Your task to perform on an android device: Open location settings Image 0: 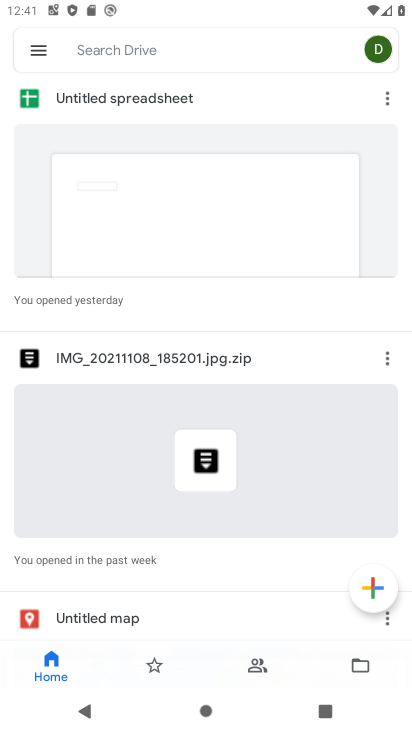
Step 0: press home button
Your task to perform on an android device: Open location settings Image 1: 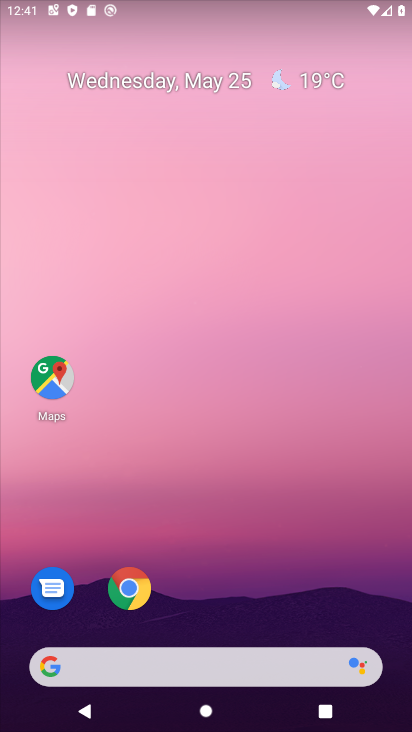
Step 1: drag from (210, 635) to (267, 99)
Your task to perform on an android device: Open location settings Image 2: 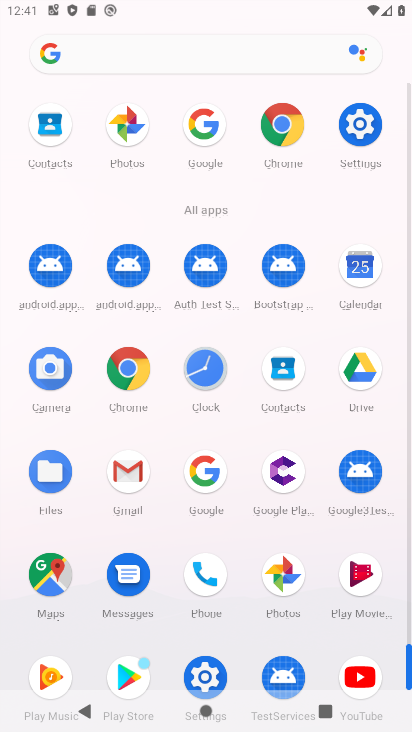
Step 2: click (187, 682)
Your task to perform on an android device: Open location settings Image 3: 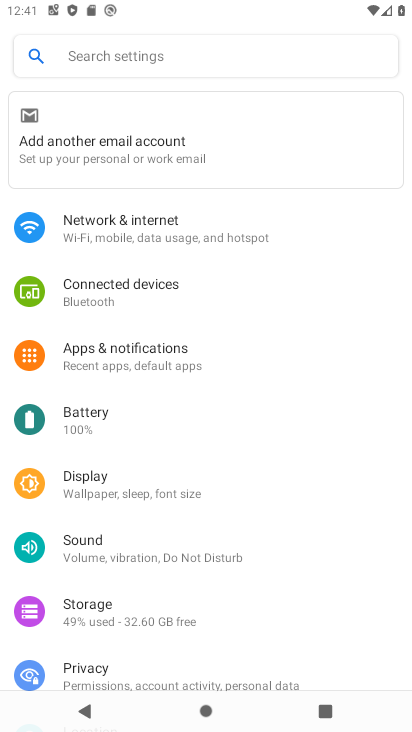
Step 3: drag from (135, 606) to (201, 260)
Your task to perform on an android device: Open location settings Image 4: 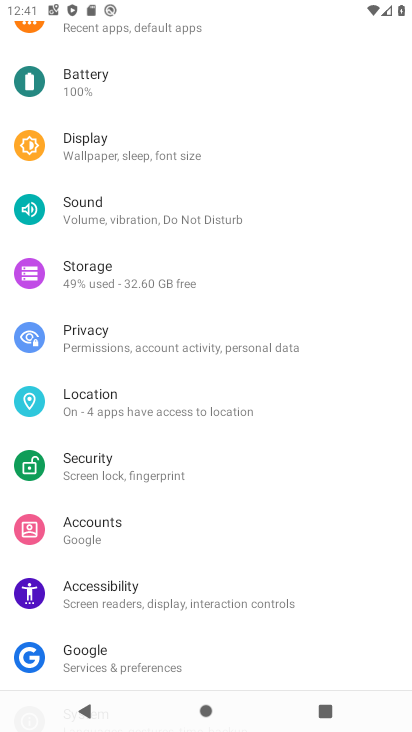
Step 4: click (132, 407)
Your task to perform on an android device: Open location settings Image 5: 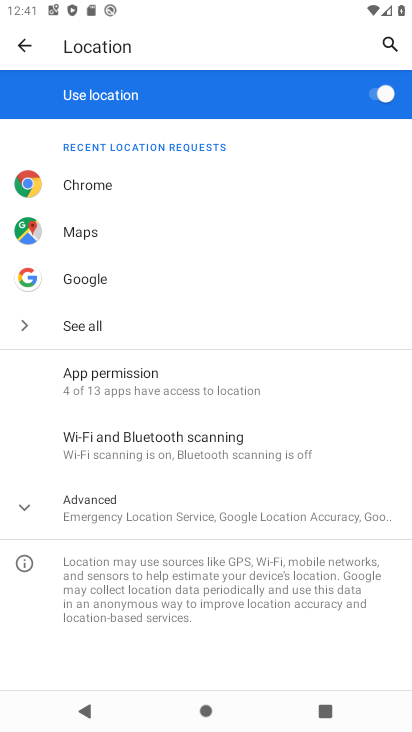
Step 5: task complete